Your task to perform on an android device: Show me productivity apps on the Play Store Image 0: 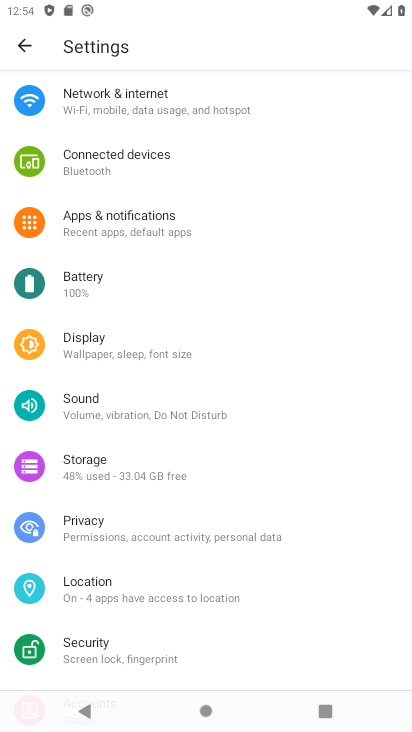
Step 0: press home button
Your task to perform on an android device: Show me productivity apps on the Play Store Image 1: 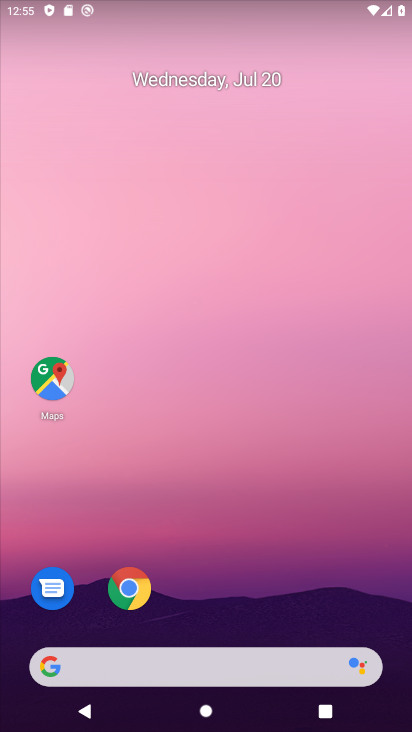
Step 1: drag from (72, 474) to (269, 136)
Your task to perform on an android device: Show me productivity apps on the Play Store Image 2: 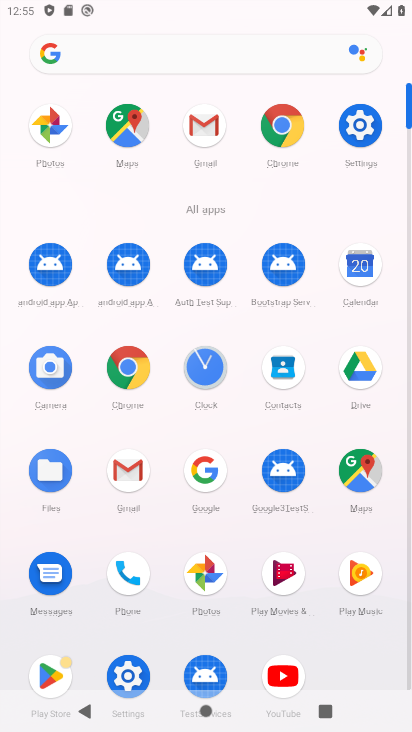
Step 2: click (38, 677)
Your task to perform on an android device: Show me productivity apps on the Play Store Image 3: 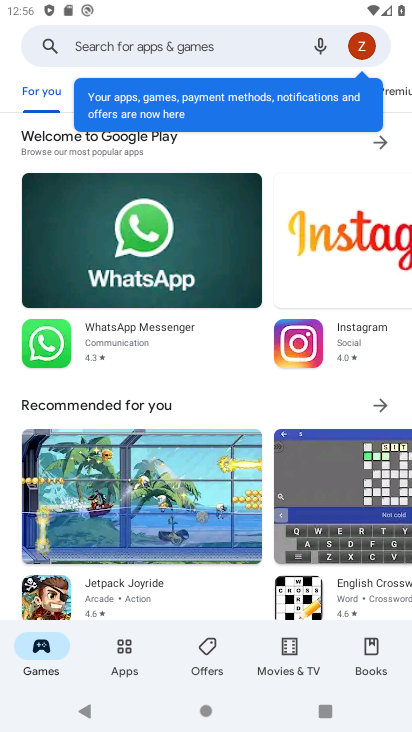
Step 3: task complete